Your task to perform on an android device: toggle priority inbox in the gmail app Image 0: 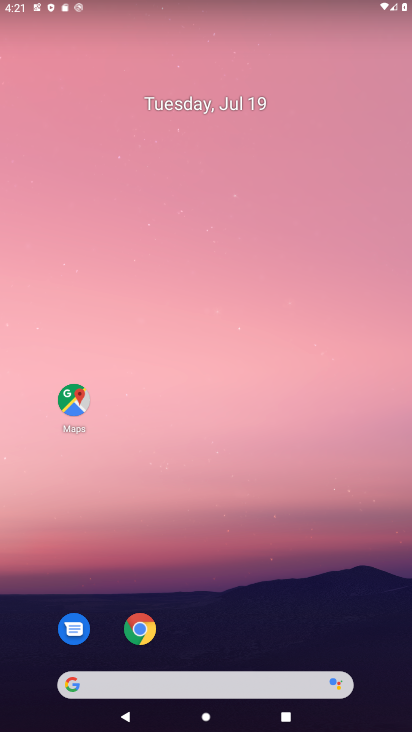
Step 0: drag from (192, 643) to (190, 262)
Your task to perform on an android device: toggle priority inbox in the gmail app Image 1: 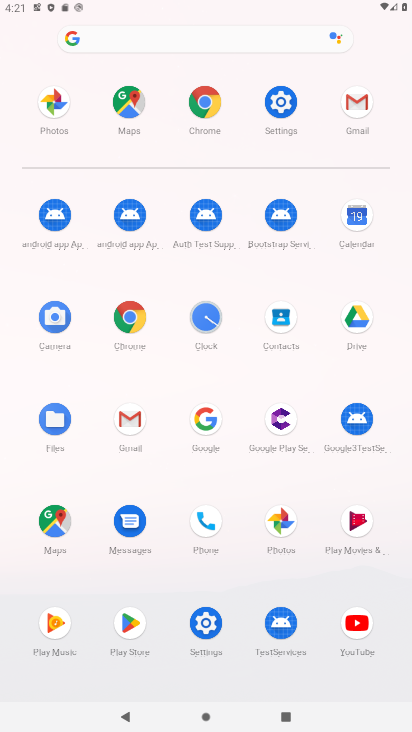
Step 1: click (133, 419)
Your task to perform on an android device: toggle priority inbox in the gmail app Image 2: 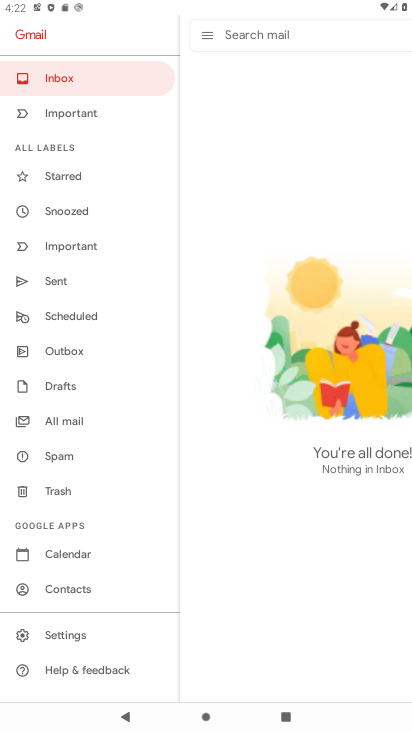
Step 2: click (71, 633)
Your task to perform on an android device: toggle priority inbox in the gmail app Image 3: 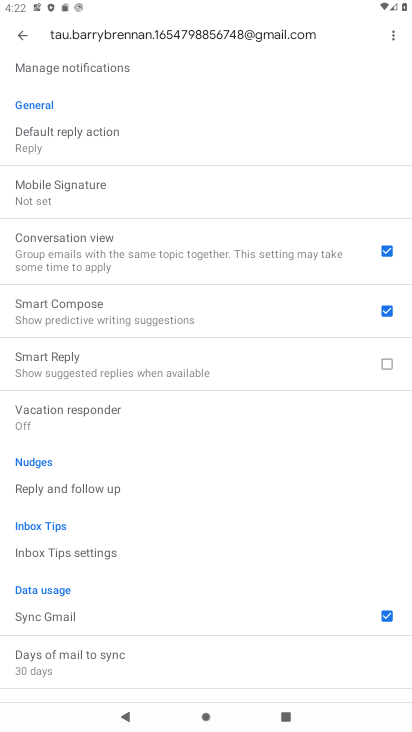
Step 3: drag from (71, 80) to (119, 535)
Your task to perform on an android device: toggle priority inbox in the gmail app Image 4: 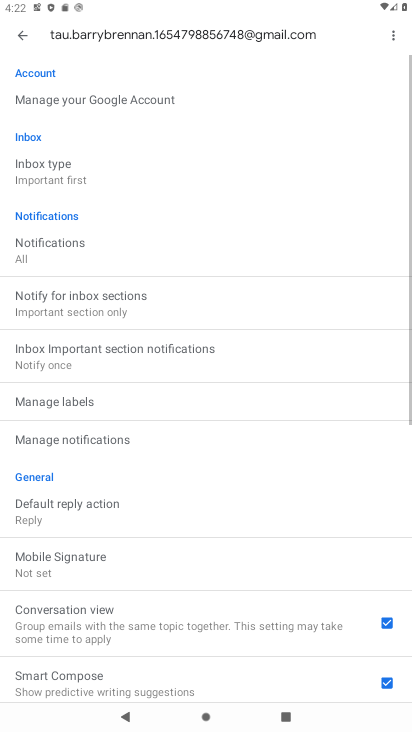
Step 4: click (50, 159)
Your task to perform on an android device: toggle priority inbox in the gmail app Image 5: 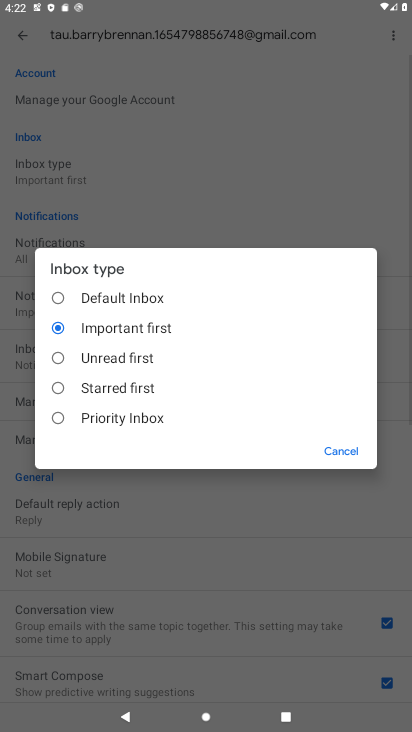
Step 5: click (108, 416)
Your task to perform on an android device: toggle priority inbox in the gmail app Image 6: 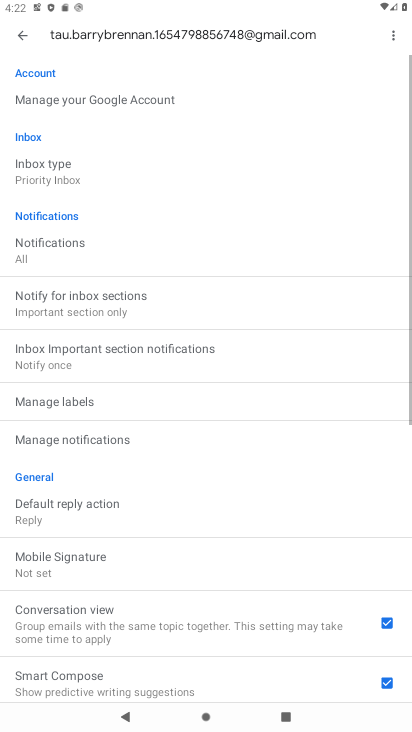
Step 6: task complete